Your task to perform on an android device: install app "Clock" Image 0: 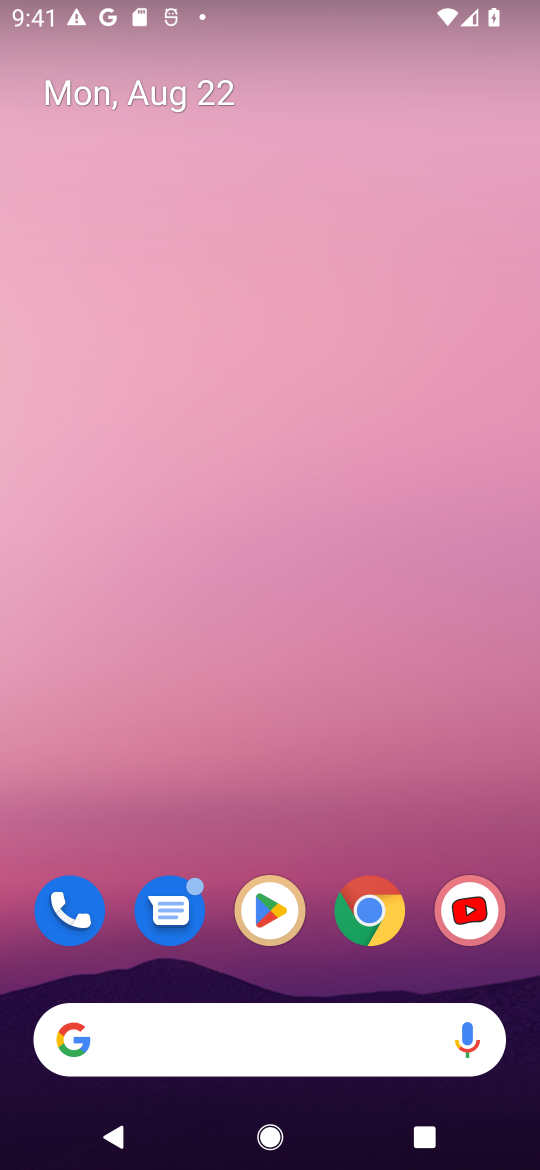
Step 0: click (280, 908)
Your task to perform on an android device: install app "Clock" Image 1: 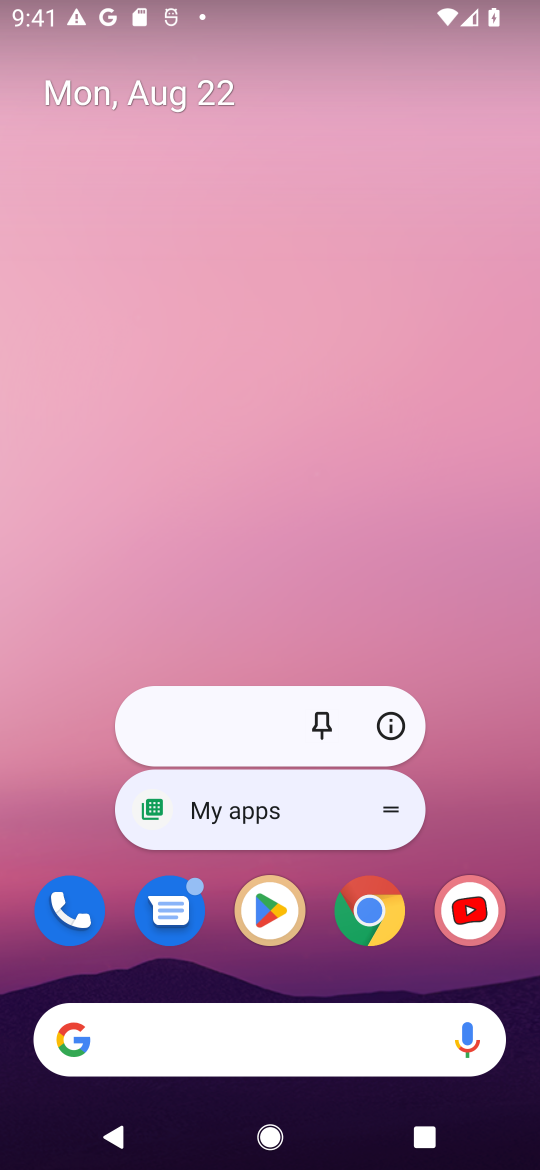
Step 1: click (280, 908)
Your task to perform on an android device: install app "Clock" Image 2: 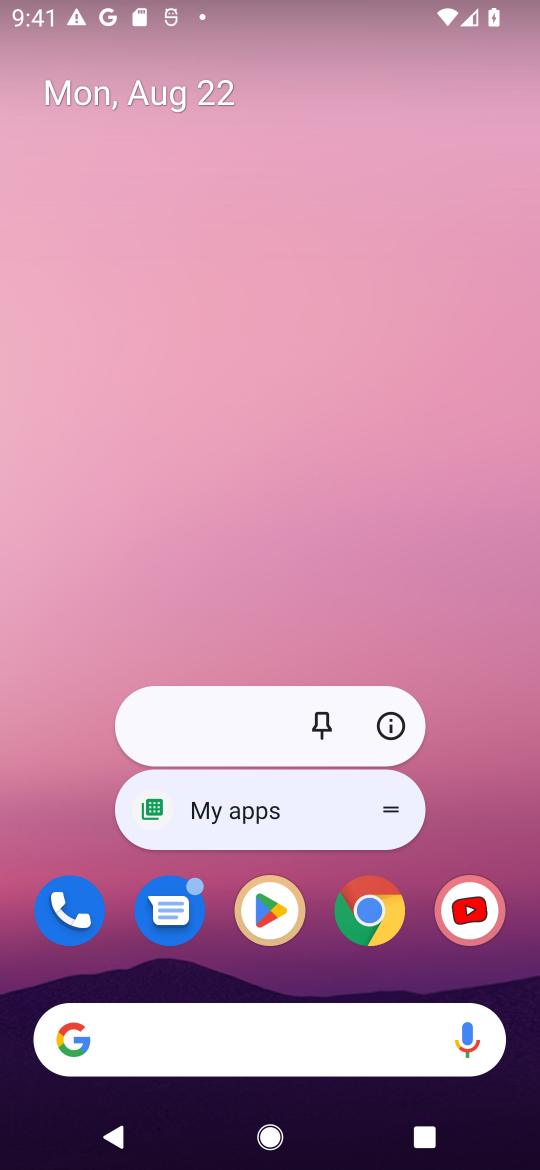
Step 2: click (291, 922)
Your task to perform on an android device: install app "Clock" Image 3: 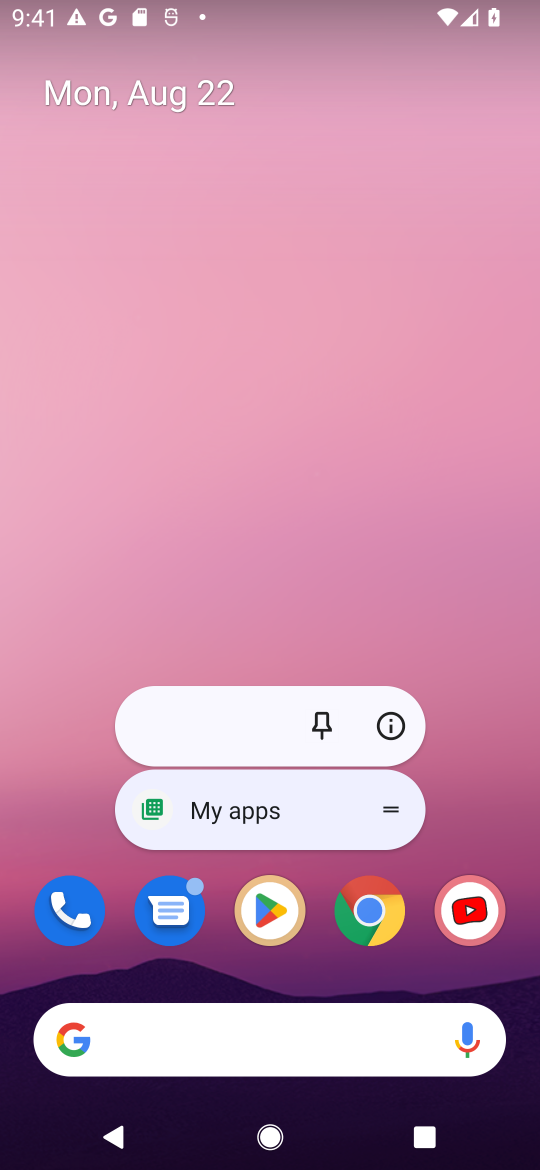
Step 3: click (291, 922)
Your task to perform on an android device: install app "Clock" Image 4: 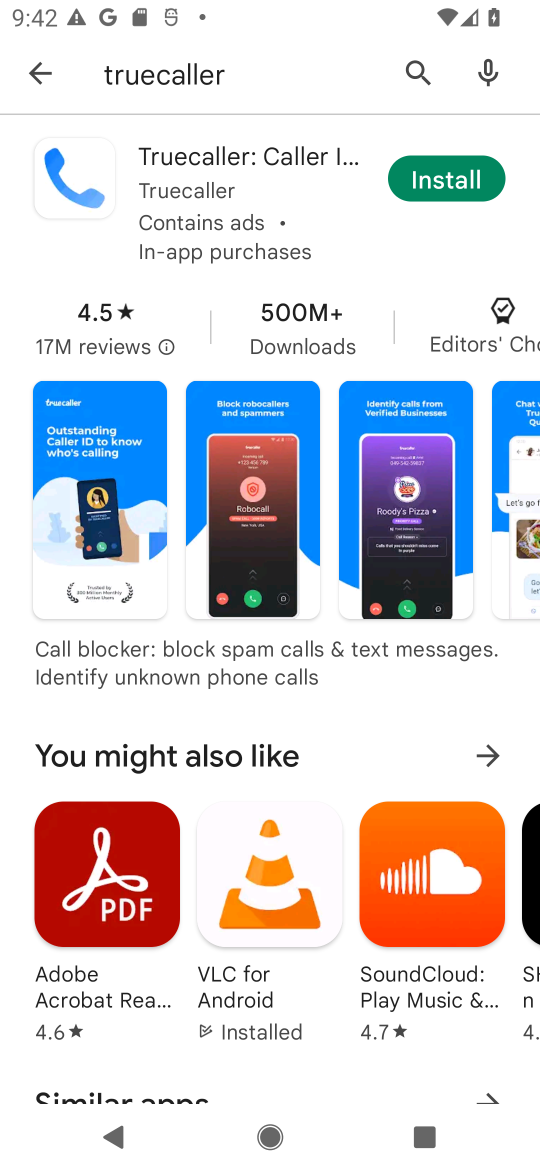
Step 4: click (419, 69)
Your task to perform on an android device: install app "Clock" Image 5: 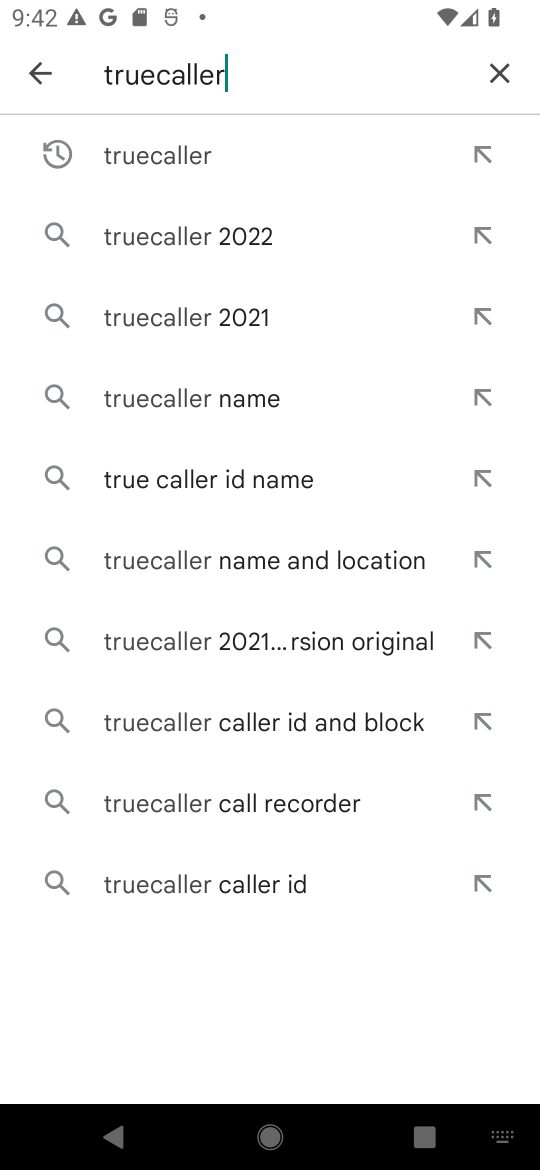
Step 5: click (498, 74)
Your task to perform on an android device: install app "Clock" Image 6: 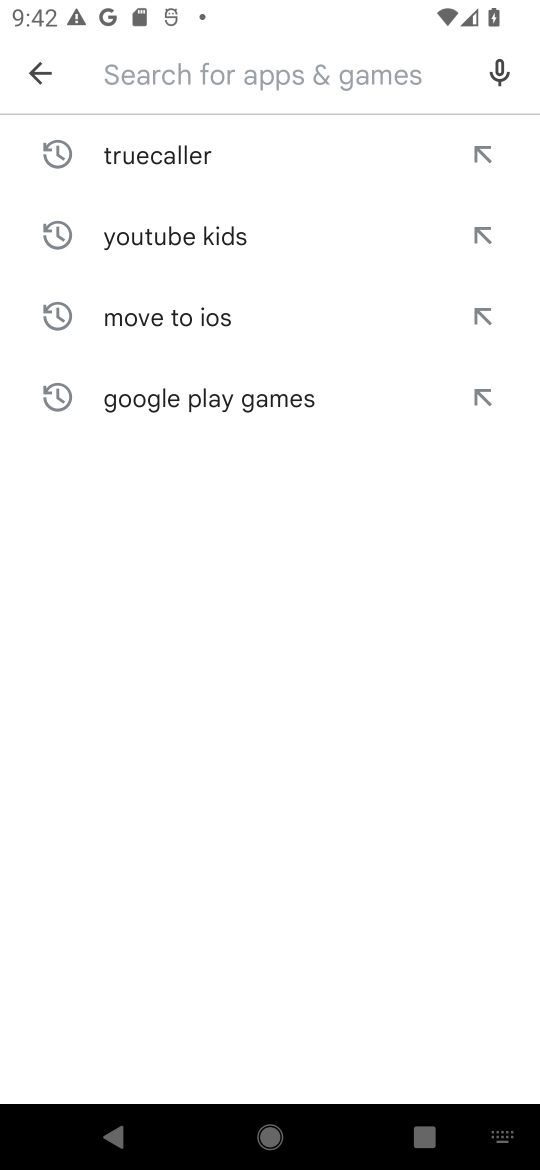
Step 6: type "Clock"
Your task to perform on an android device: install app "Clock" Image 7: 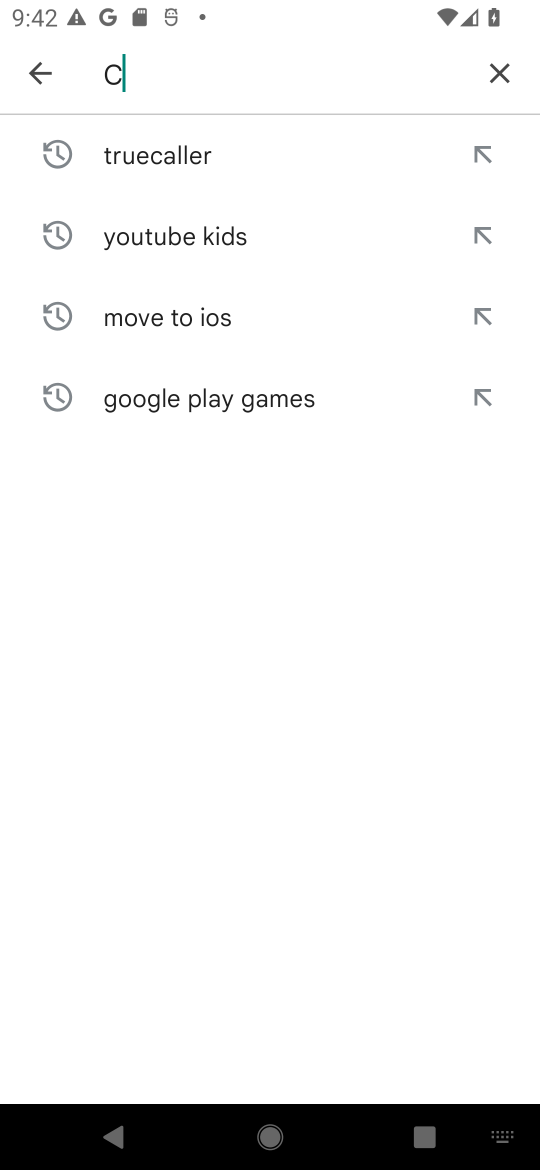
Step 7: type ""
Your task to perform on an android device: install app "Clock" Image 8: 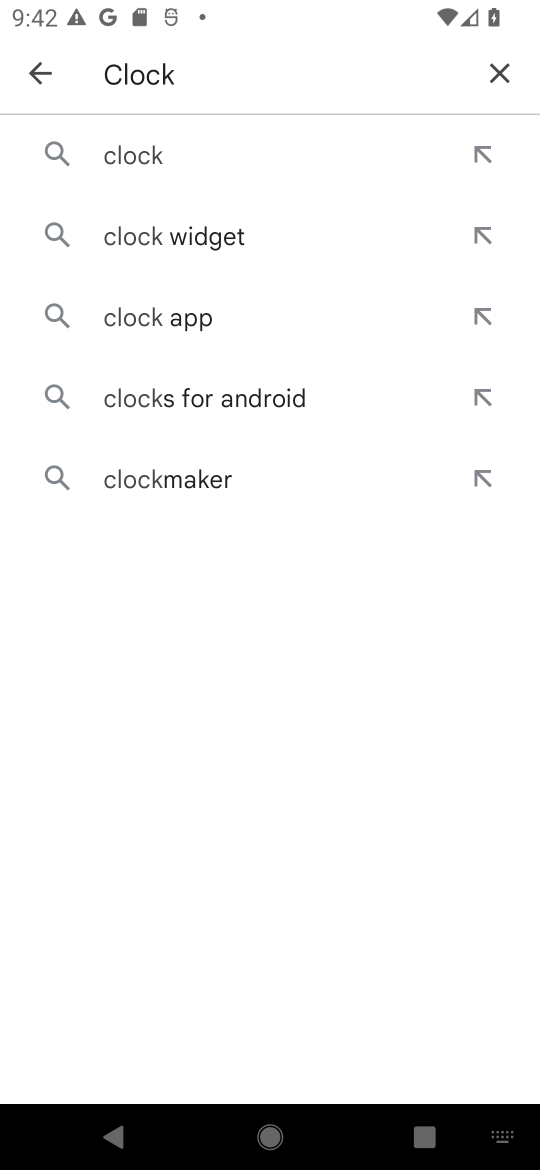
Step 8: click (165, 160)
Your task to perform on an android device: install app "Clock" Image 9: 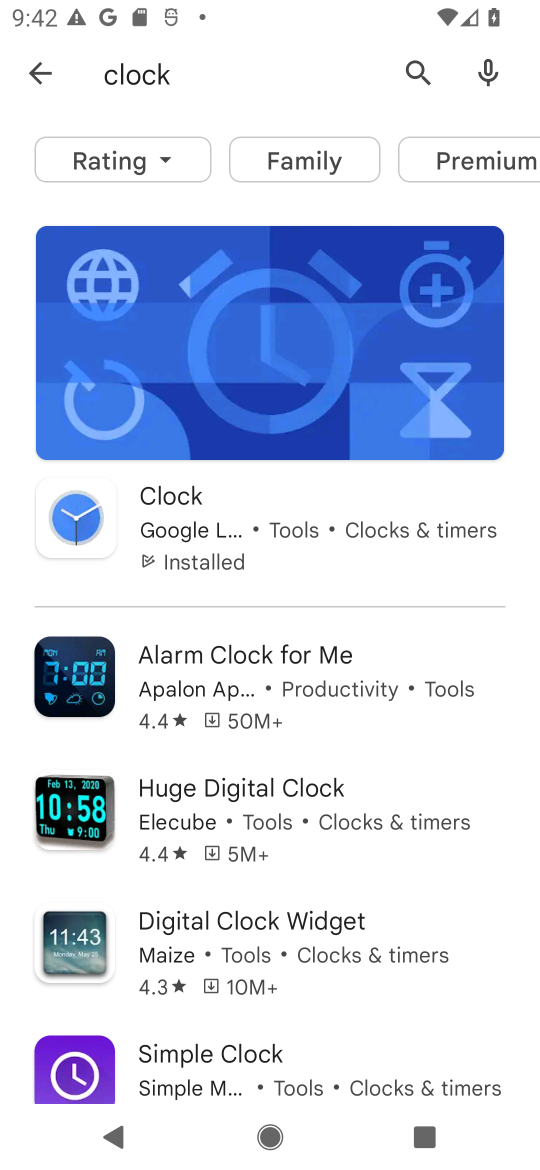
Step 9: click (254, 527)
Your task to perform on an android device: install app "Clock" Image 10: 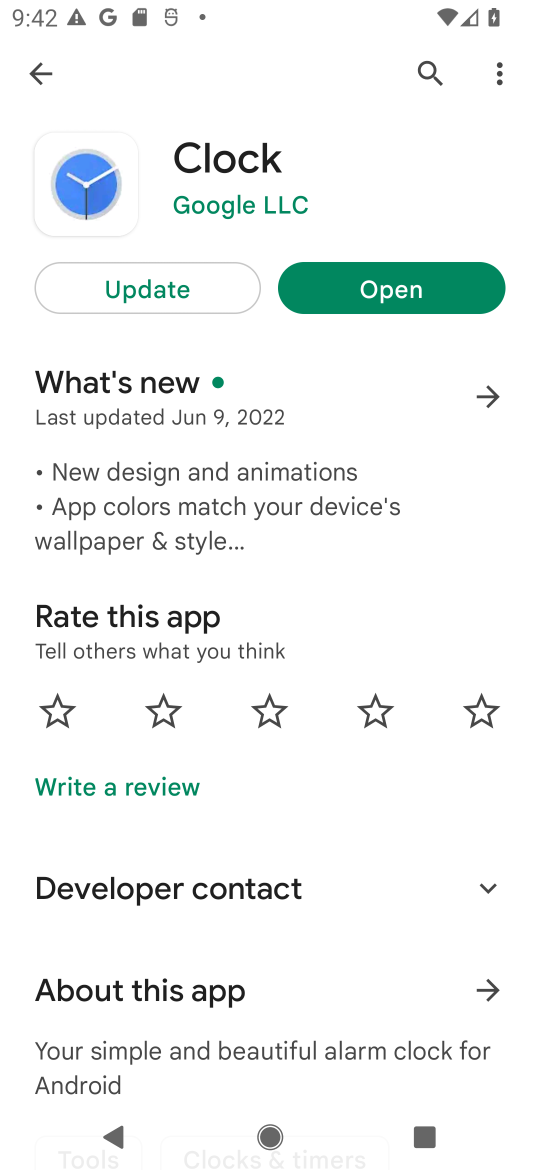
Step 10: task complete